Your task to perform on an android device: change the clock display to show seconds Image 0: 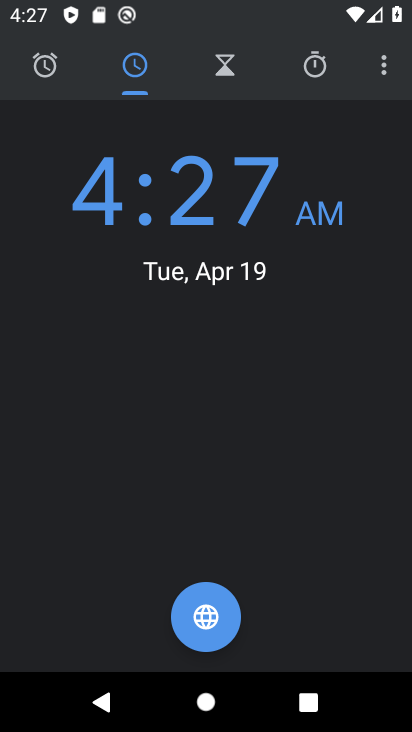
Step 0: click (379, 63)
Your task to perform on an android device: change the clock display to show seconds Image 1: 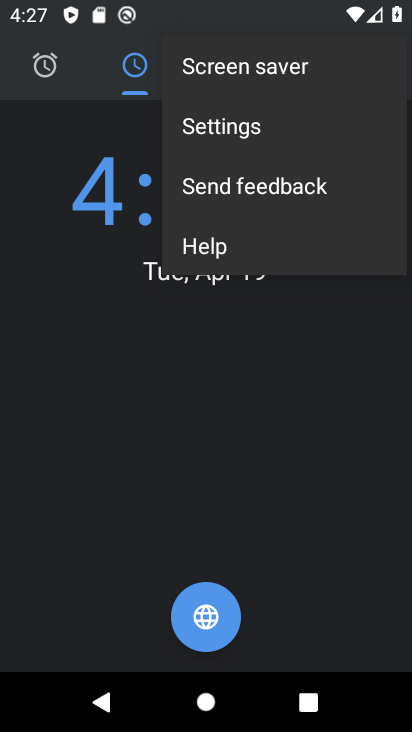
Step 1: click (209, 118)
Your task to perform on an android device: change the clock display to show seconds Image 2: 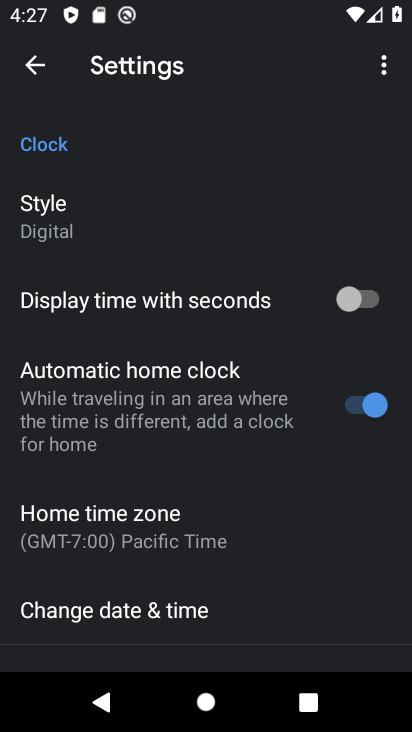
Step 2: click (367, 297)
Your task to perform on an android device: change the clock display to show seconds Image 3: 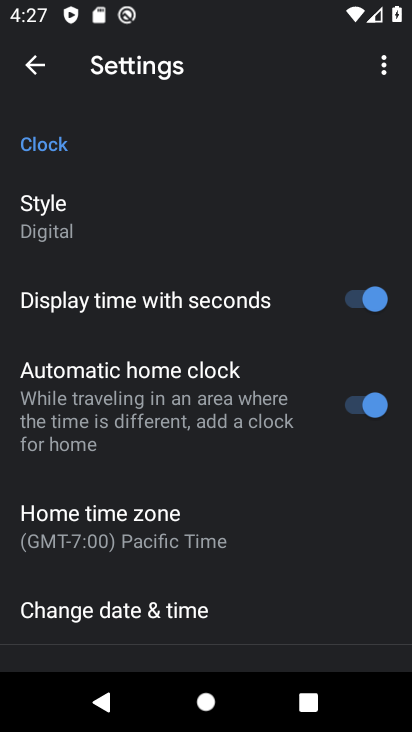
Step 3: task complete